Your task to perform on an android device: change keyboard looks Image 0: 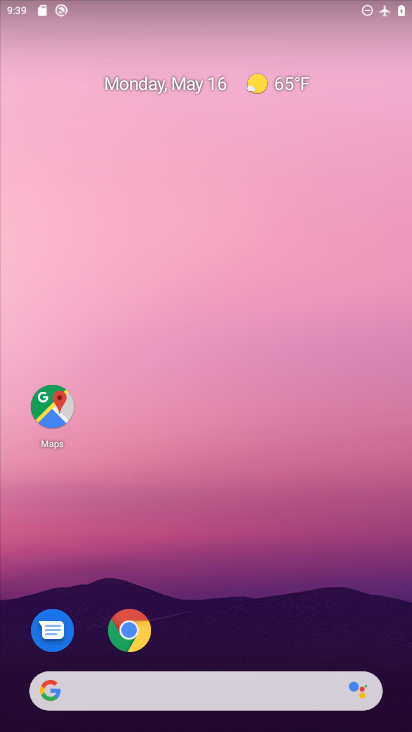
Step 0: drag from (255, 639) to (257, 255)
Your task to perform on an android device: change keyboard looks Image 1: 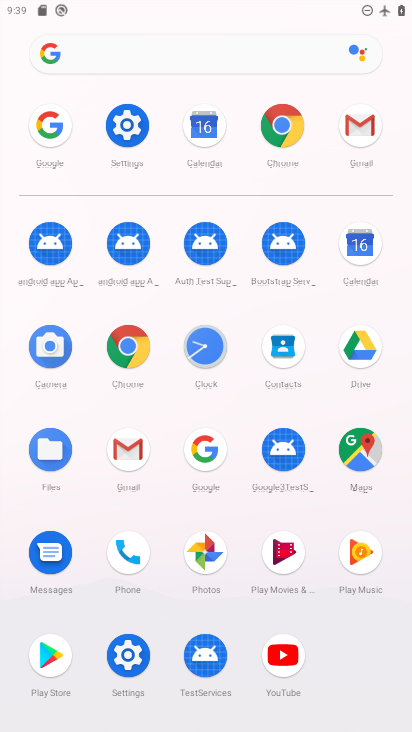
Step 1: click (119, 128)
Your task to perform on an android device: change keyboard looks Image 2: 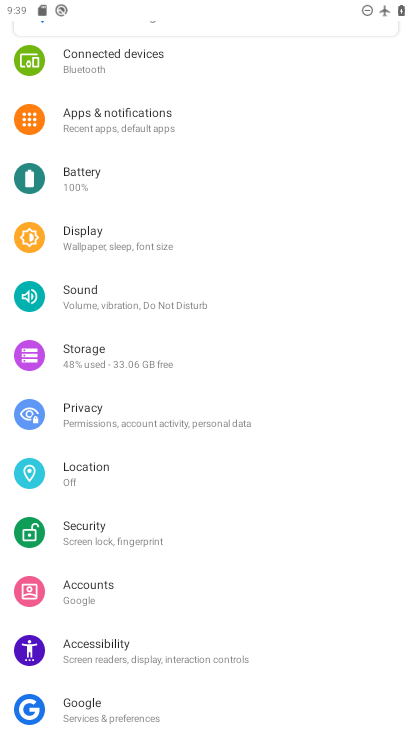
Step 2: drag from (125, 677) to (234, 233)
Your task to perform on an android device: change keyboard looks Image 3: 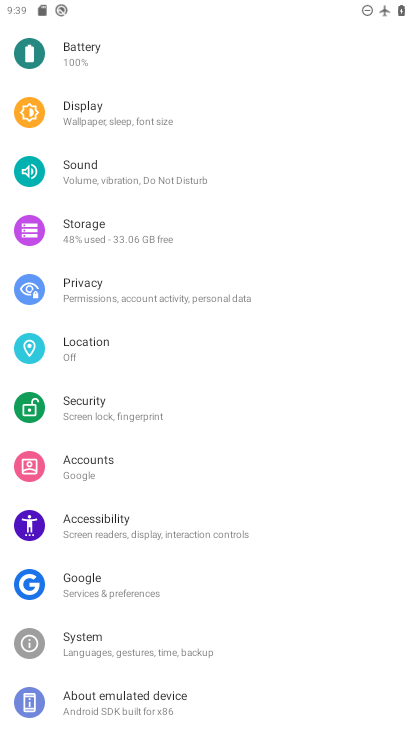
Step 3: click (186, 640)
Your task to perform on an android device: change keyboard looks Image 4: 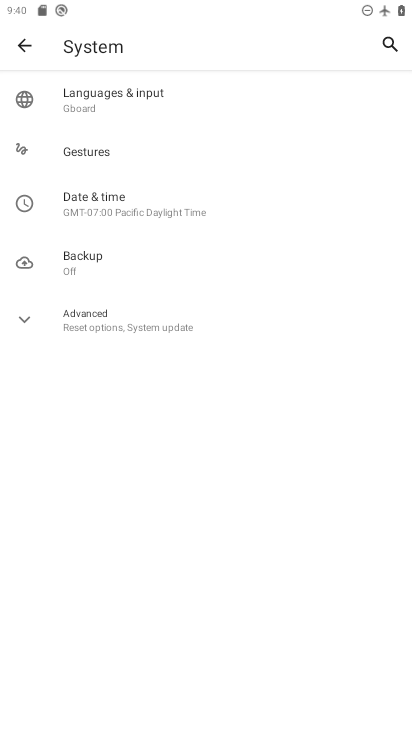
Step 4: click (128, 95)
Your task to perform on an android device: change keyboard looks Image 5: 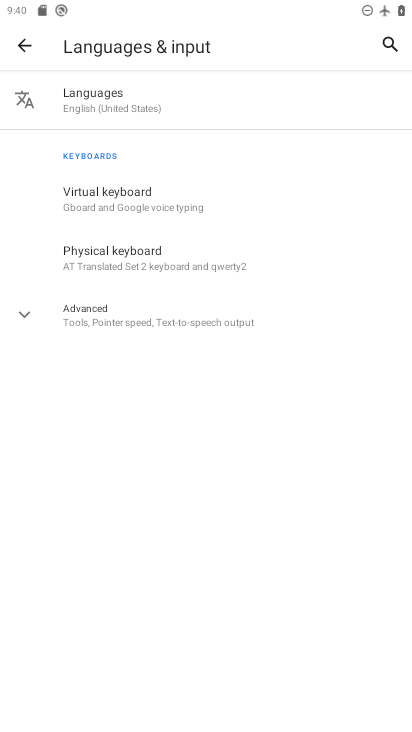
Step 5: click (126, 303)
Your task to perform on an android device: change keyboard looks Image 6: 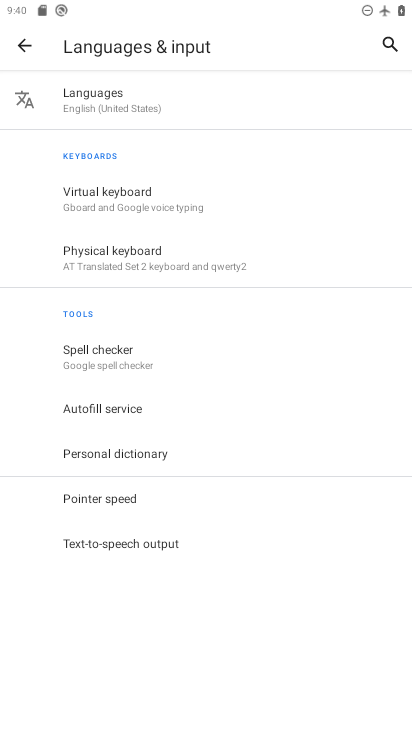
Step 6: click (153, 199)
Your task to perform on an android device: change keyboard looks Image 7: 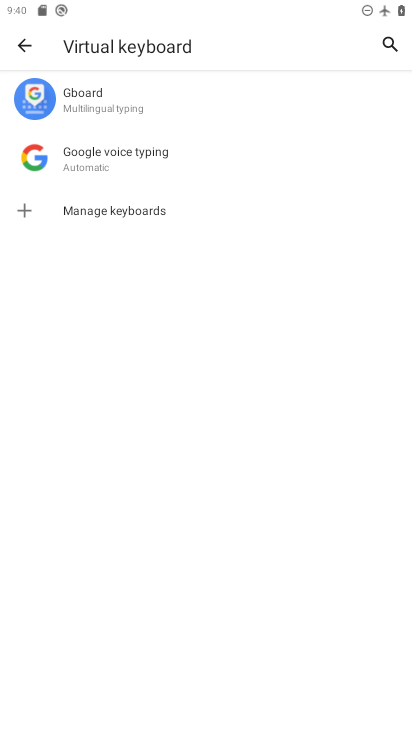
Step 7: click (109, 97)
Your task to perform on an android device: change keyboard looks Image 8: 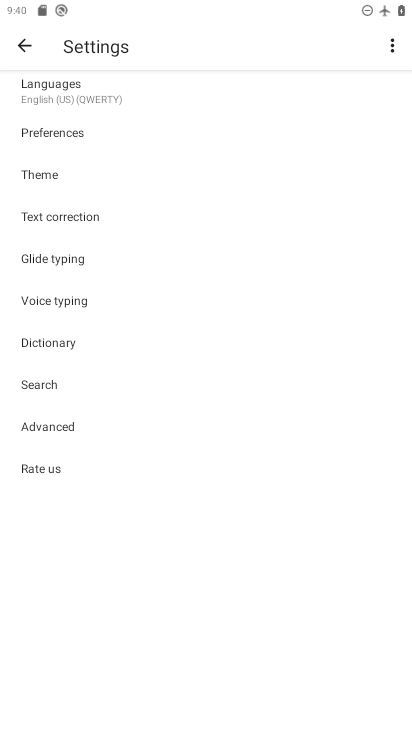
Step 8: click (49, 182)
Your task to perform on an android device: change keyboard looks Image 9: 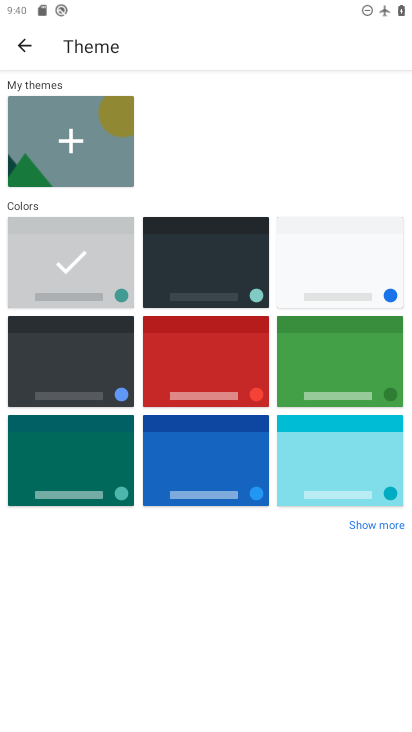
Step 9: click (311, 251)
Your task to perform on an android device: change keyboard looks Image 10: 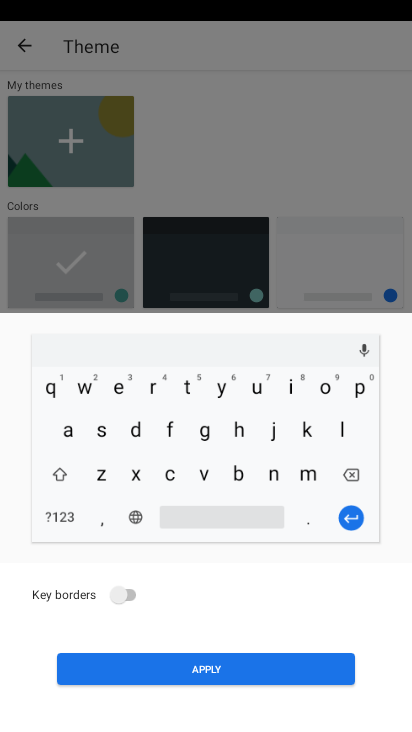
Step 10: click (223, 674)
Your task to perform on an android device: change keyboard looks Image 11: 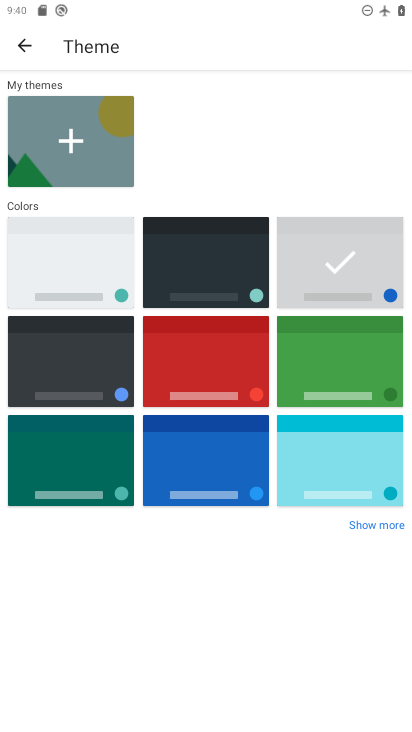
Step 11: task complete